Your task to perform on an android device: open app "Google Find My Device" (install if not already installed) Image 0: 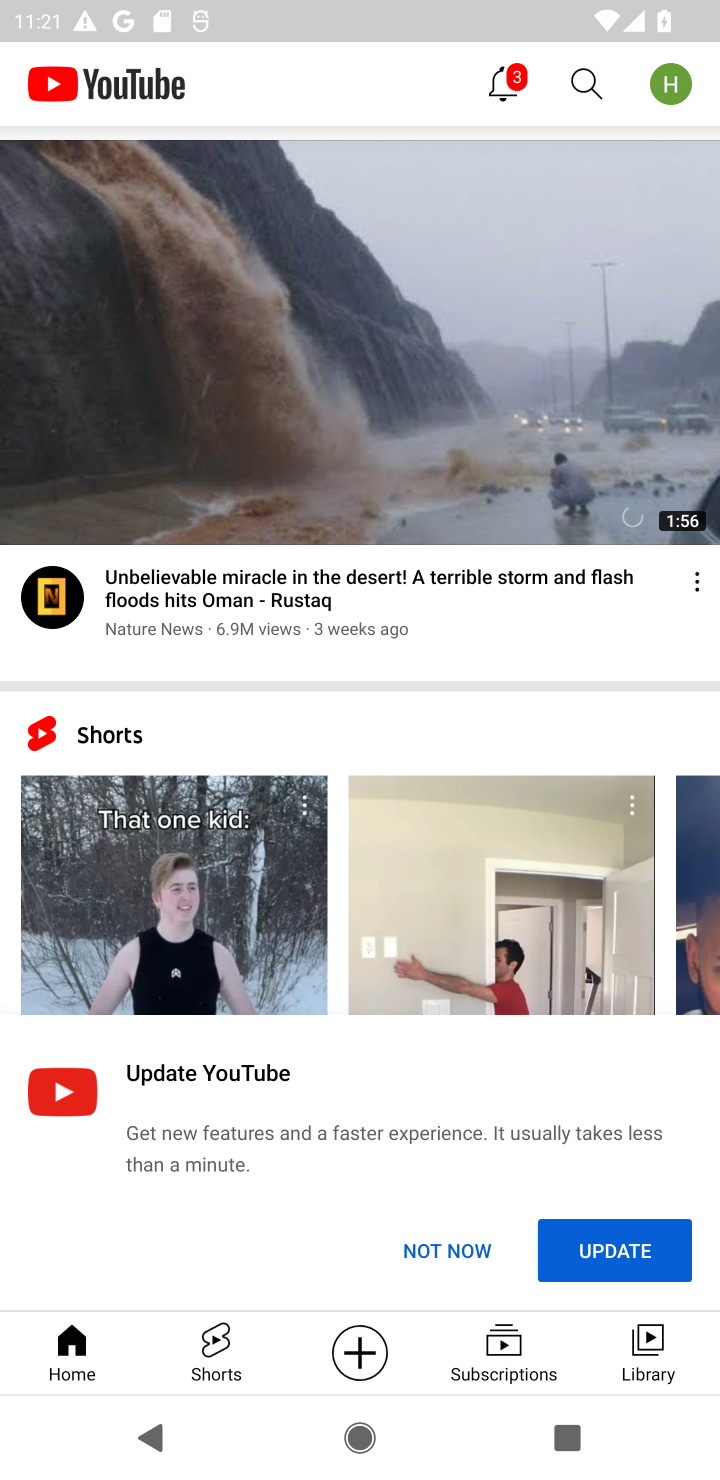
Step 0: press back button
Your task to perform on an android device: open app "Google Find My Device" (install if not already installed) Image 1: 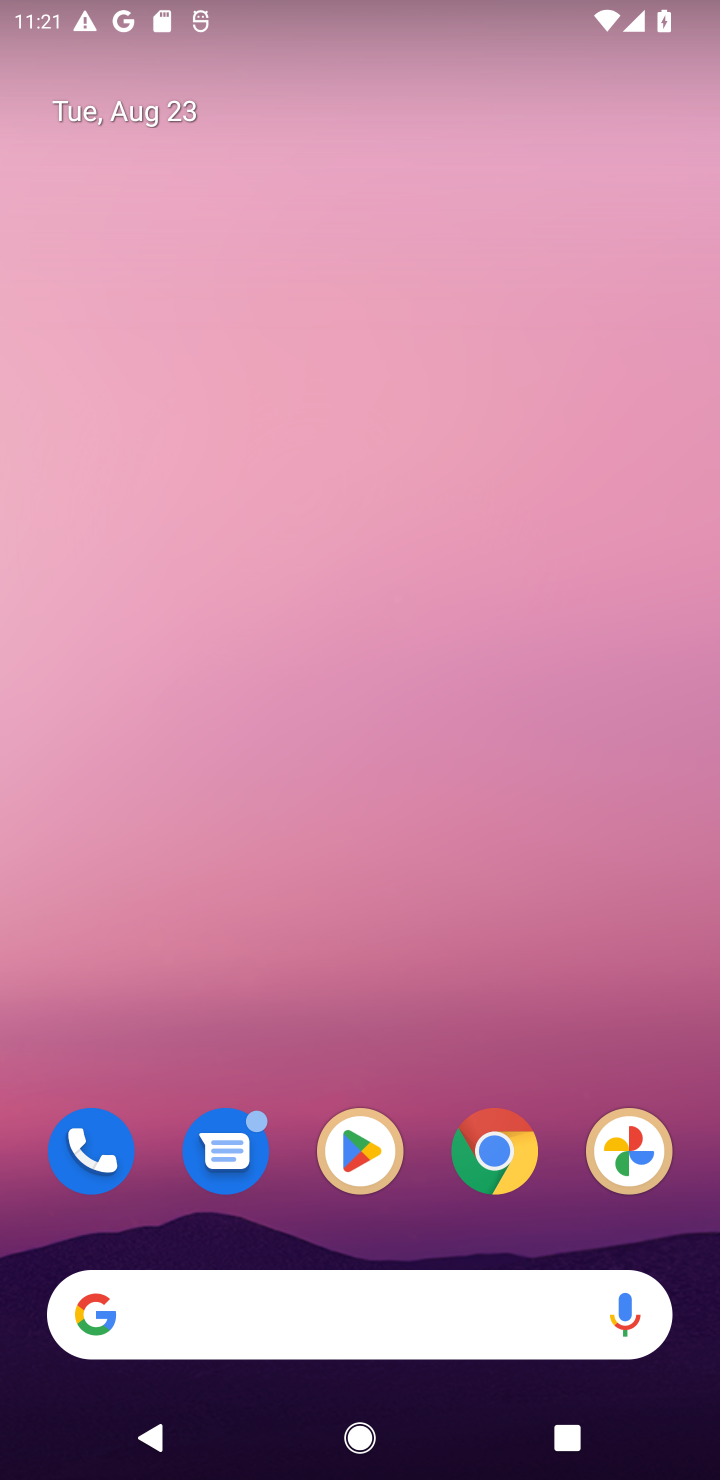
Step 1: click (347, 1153)
Your task to perform on an android device: open app "Google Find My Device" (install if not already installed) Image 2: 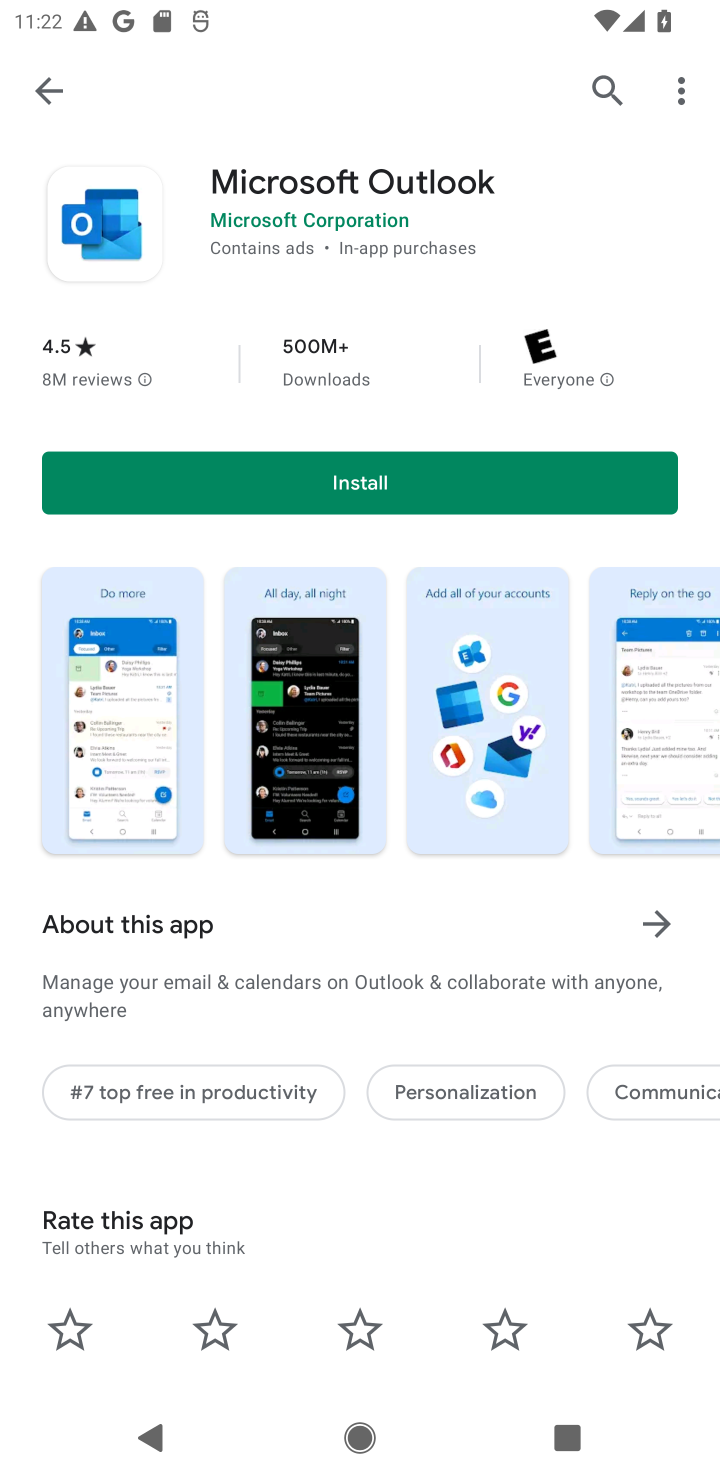
Step 2: click (594, 93)
Your task to perform on an android device: open app "Google Find My Device" (install if not already installed) Image 3: 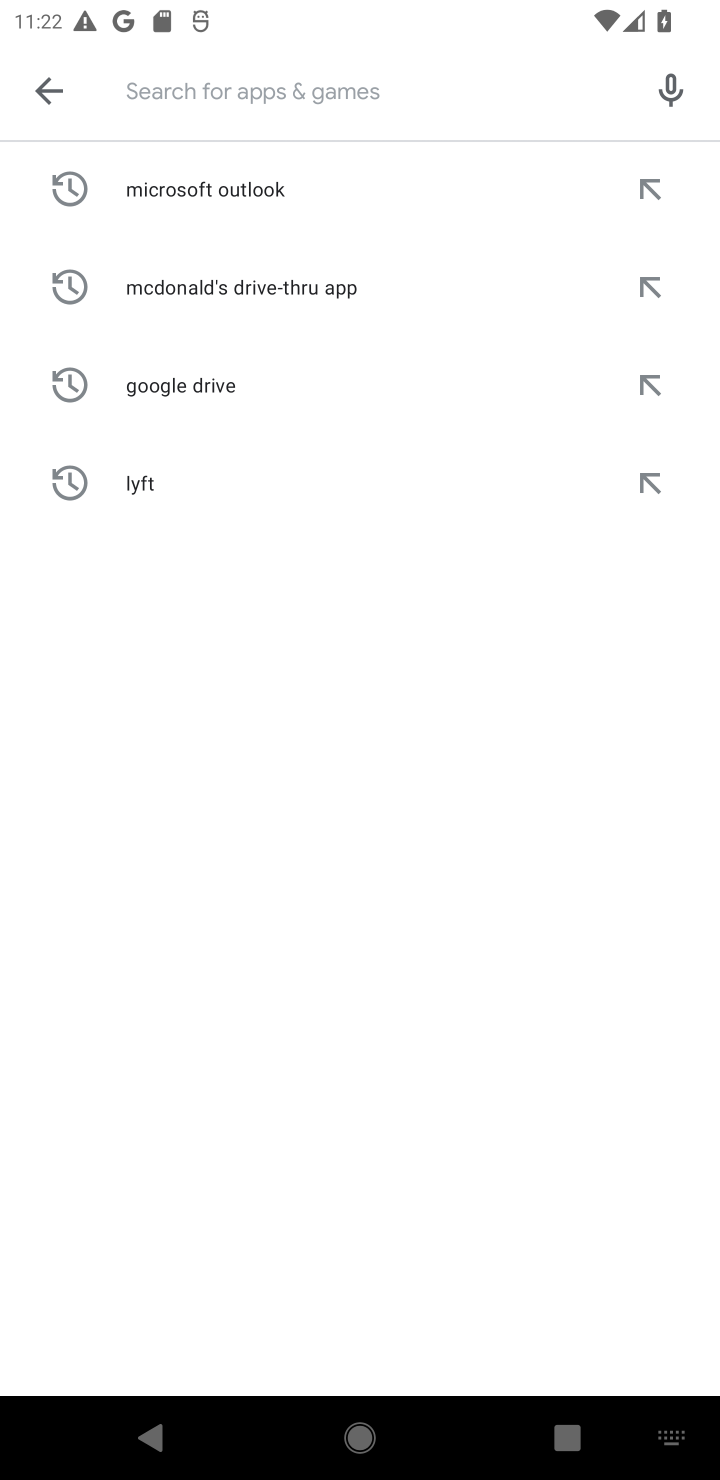
Step 3: type "Google Find My Device"
Your task to perform on an android device: open app "Google Find My Device" (install if not already installed) Image 4: 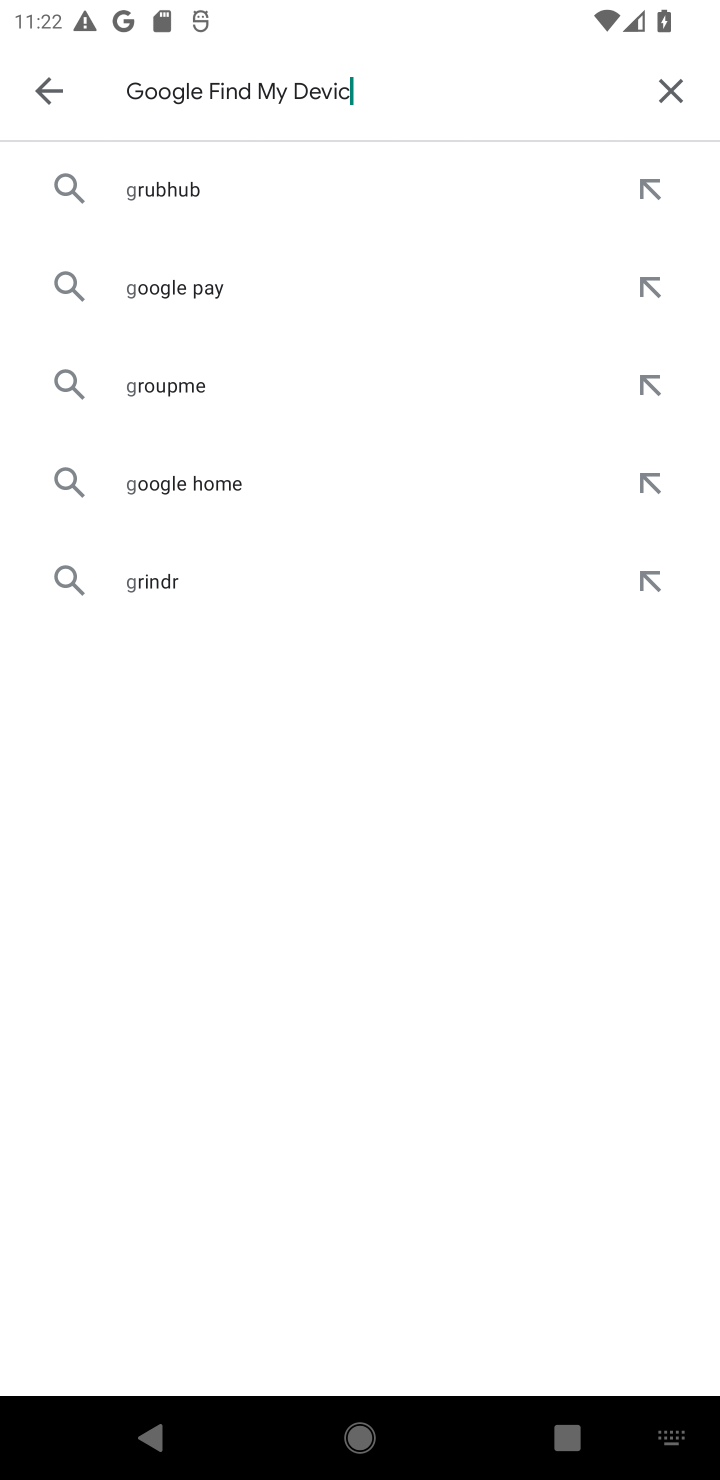
Step 4: type ""
Your task to perform on an android device: open app "Google Find My Device" (install if not already installed) Image 5: 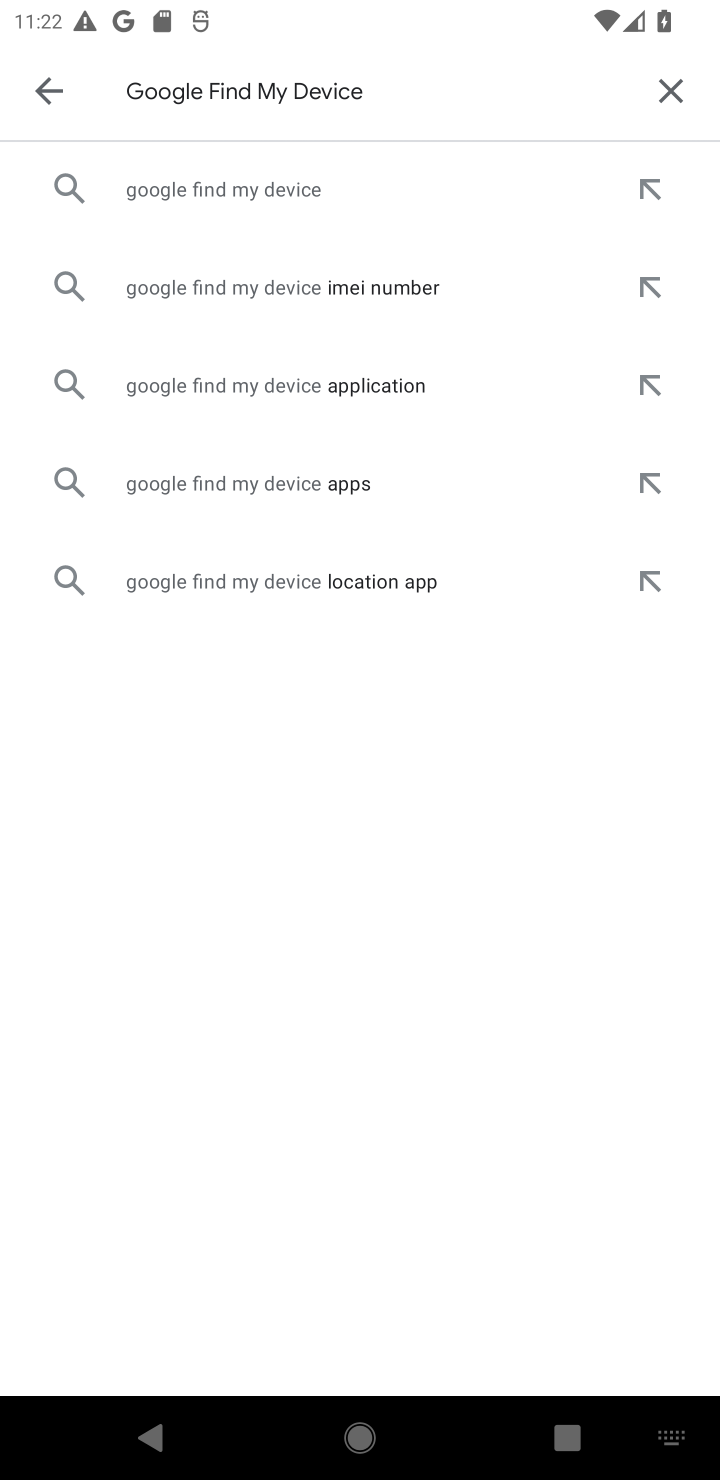
Step 5: click (319, 203)
Your task to perform on an android device: open app "Google Find My Device" (install if not already installed) Image 6: 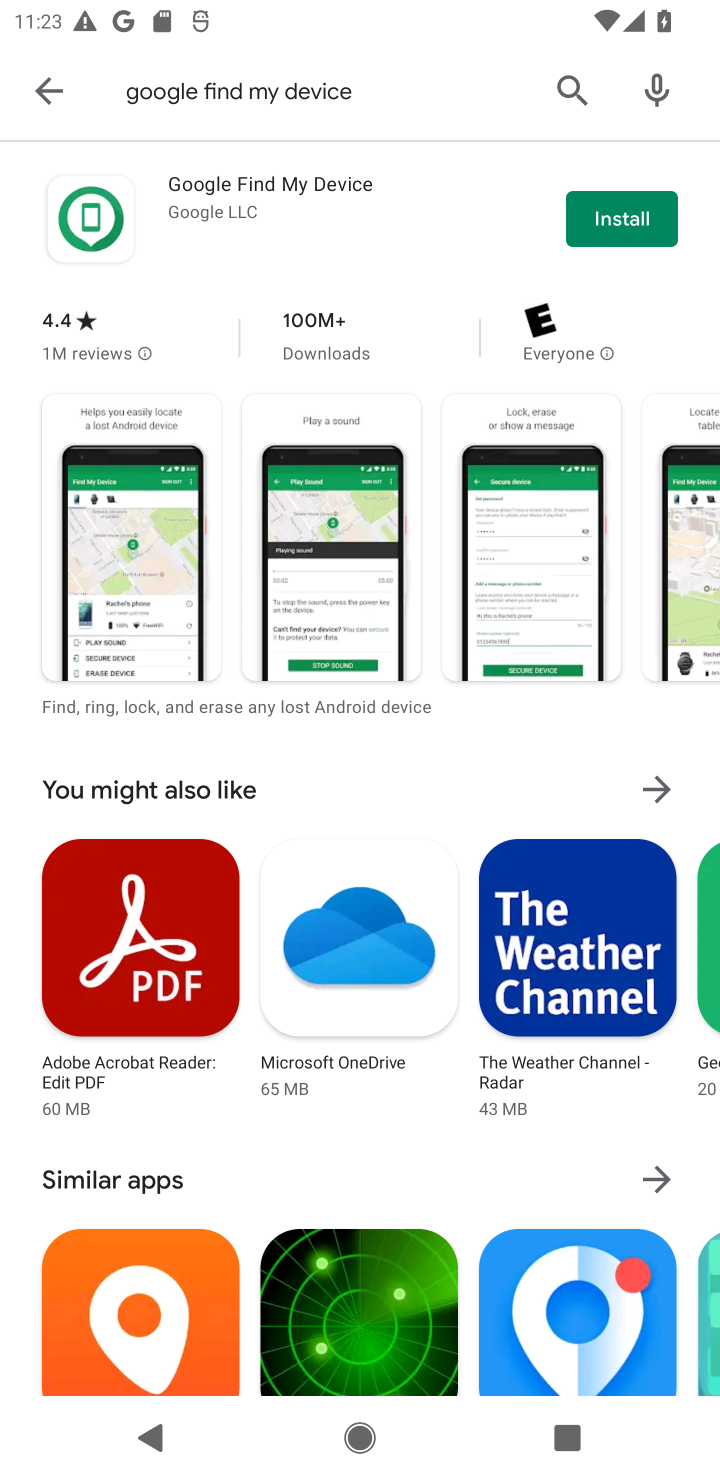
Step 6: click (613, 230)
Your task to perform on an android device: open app "Google Find My Device" (install if not already installed) Image 7: 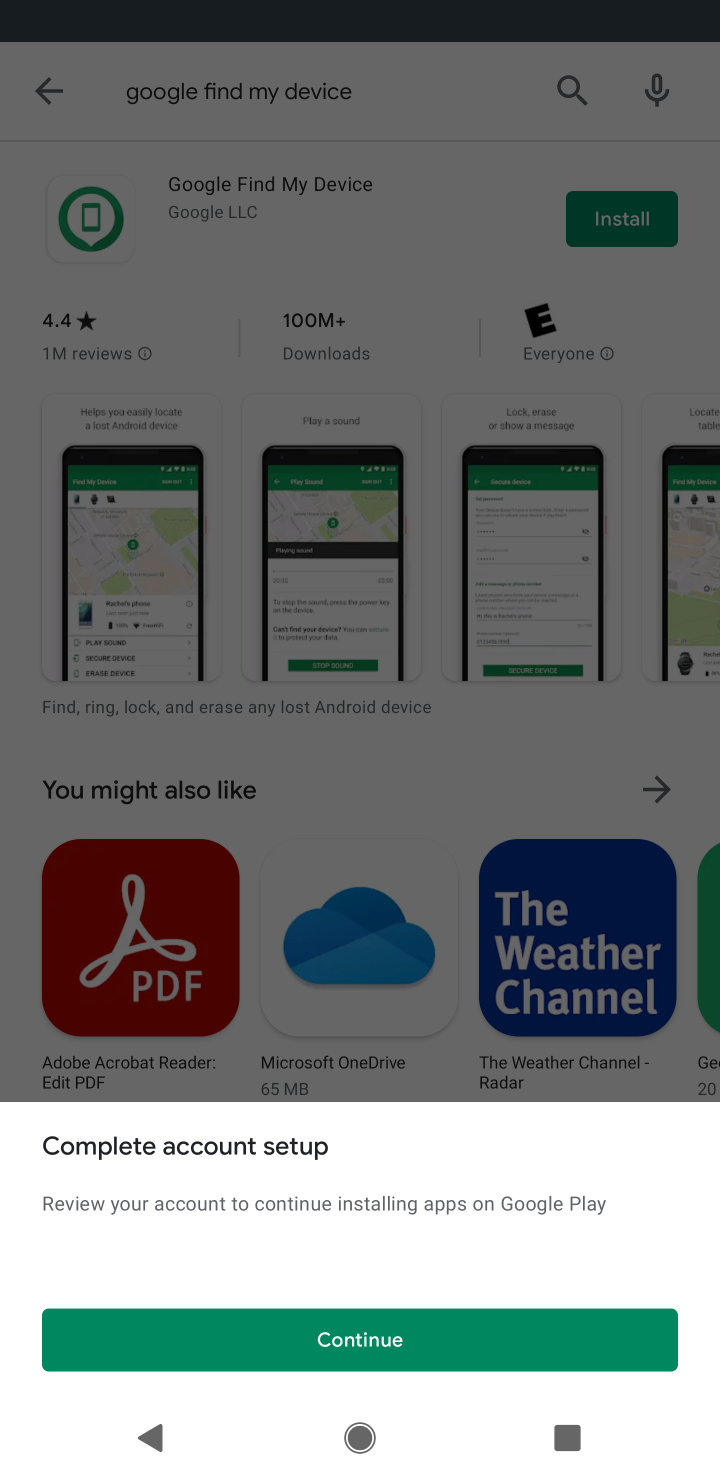
Step 7: click (318, 1321)
Your task to perform on an android device: open app "Google Find My Device" (install if not already installed) Image 8: 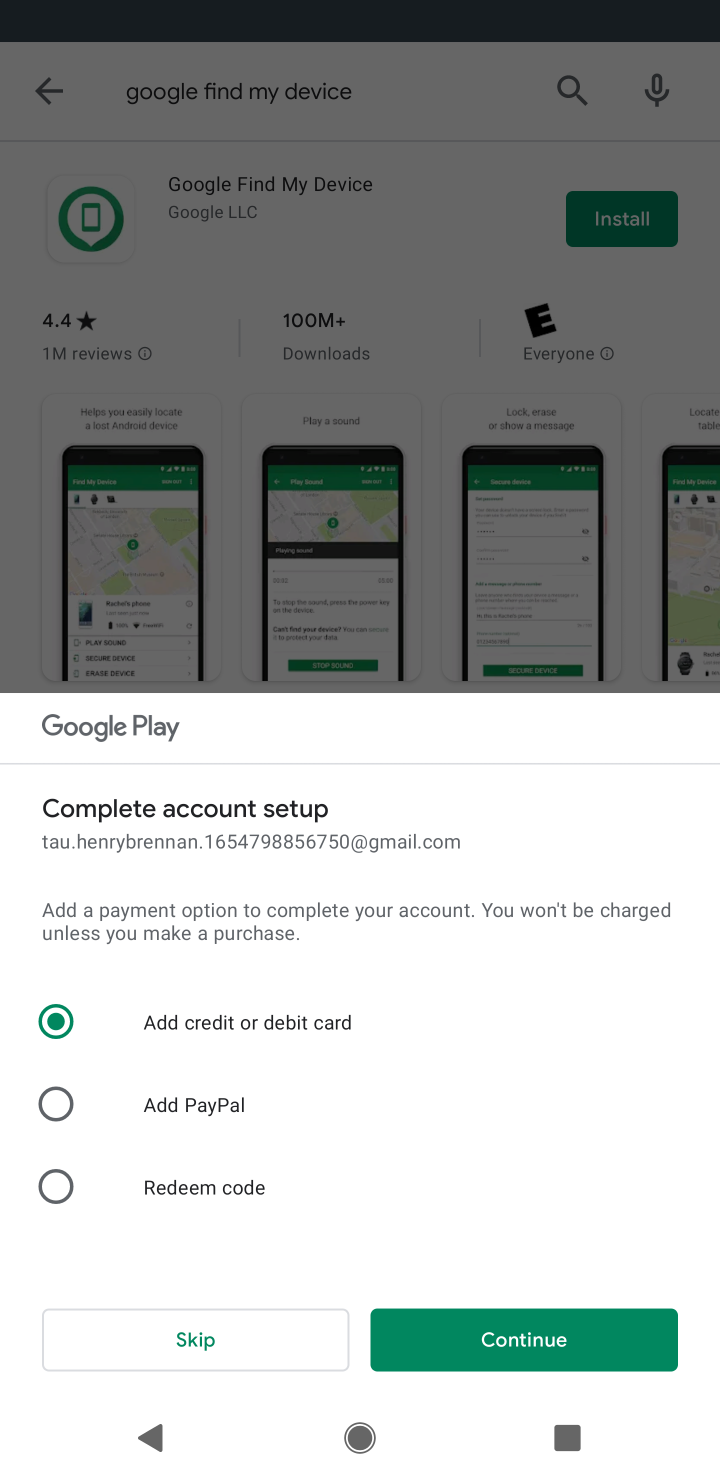
Step 8: click (166, 1356)
Your task to perform on an android device: open app "Google Find My Device" (install if not already installed) Image 9: 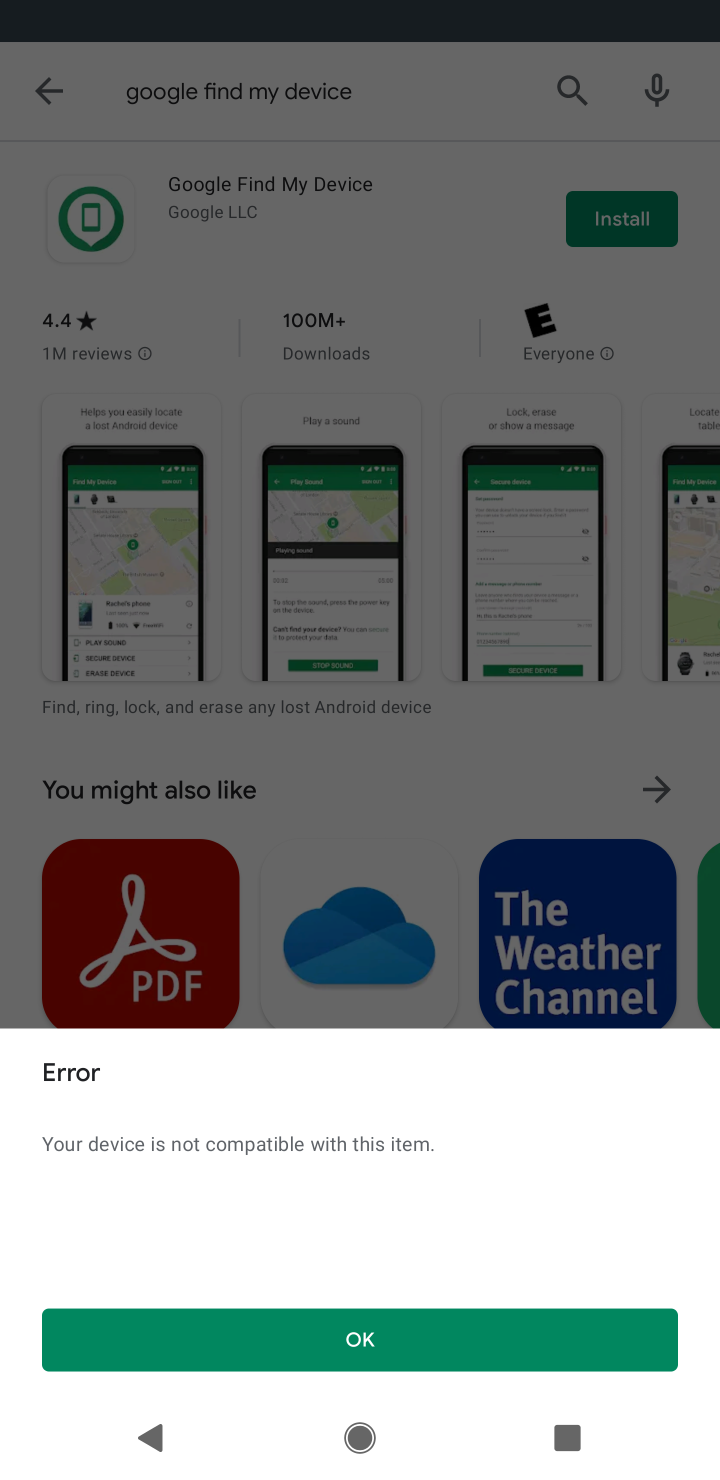
Step 9: click (315, 1324)
Your task to perform on an android device: open app "Google Find My Device" (install if not already installed) Image 10: 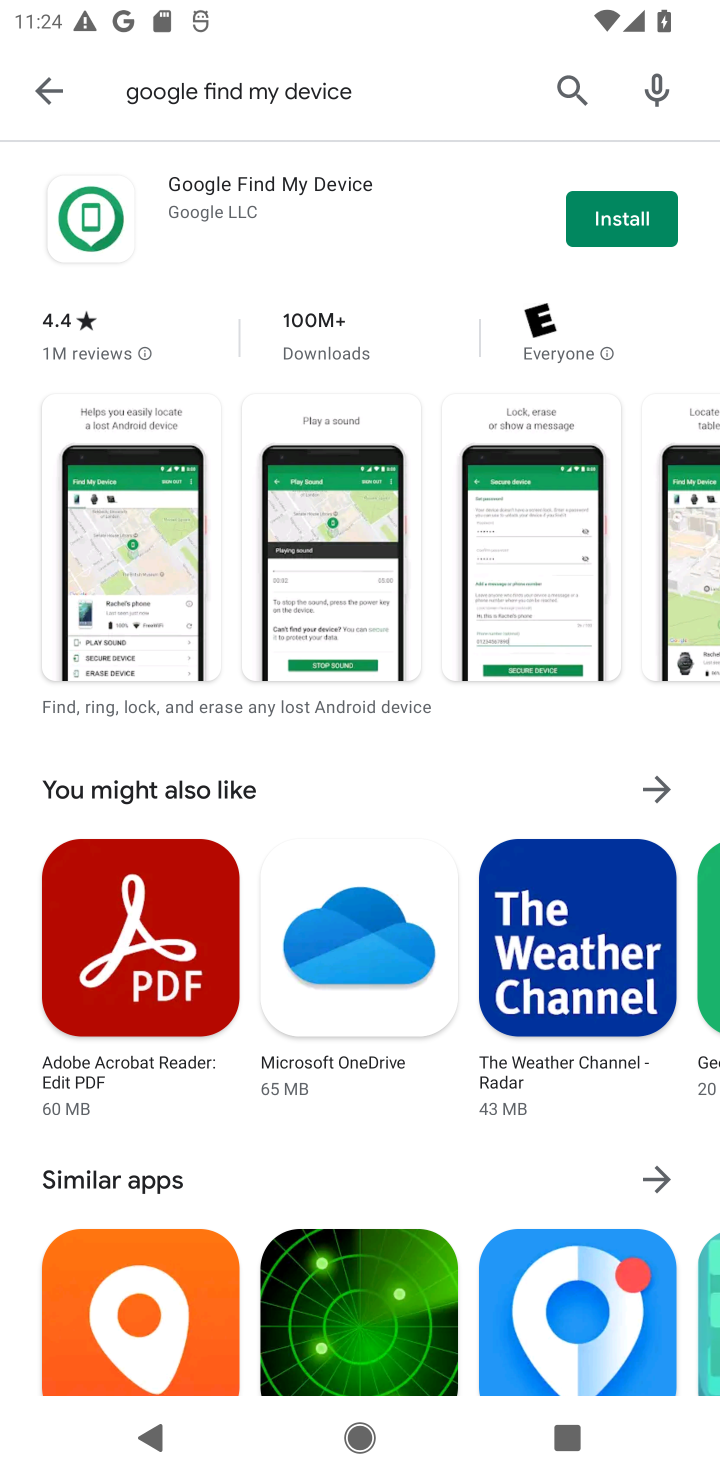
Step 10: click (615, 234)
Your task to perform on an android device: open app "Google Find My Device" (install if not already installed) Image 11: 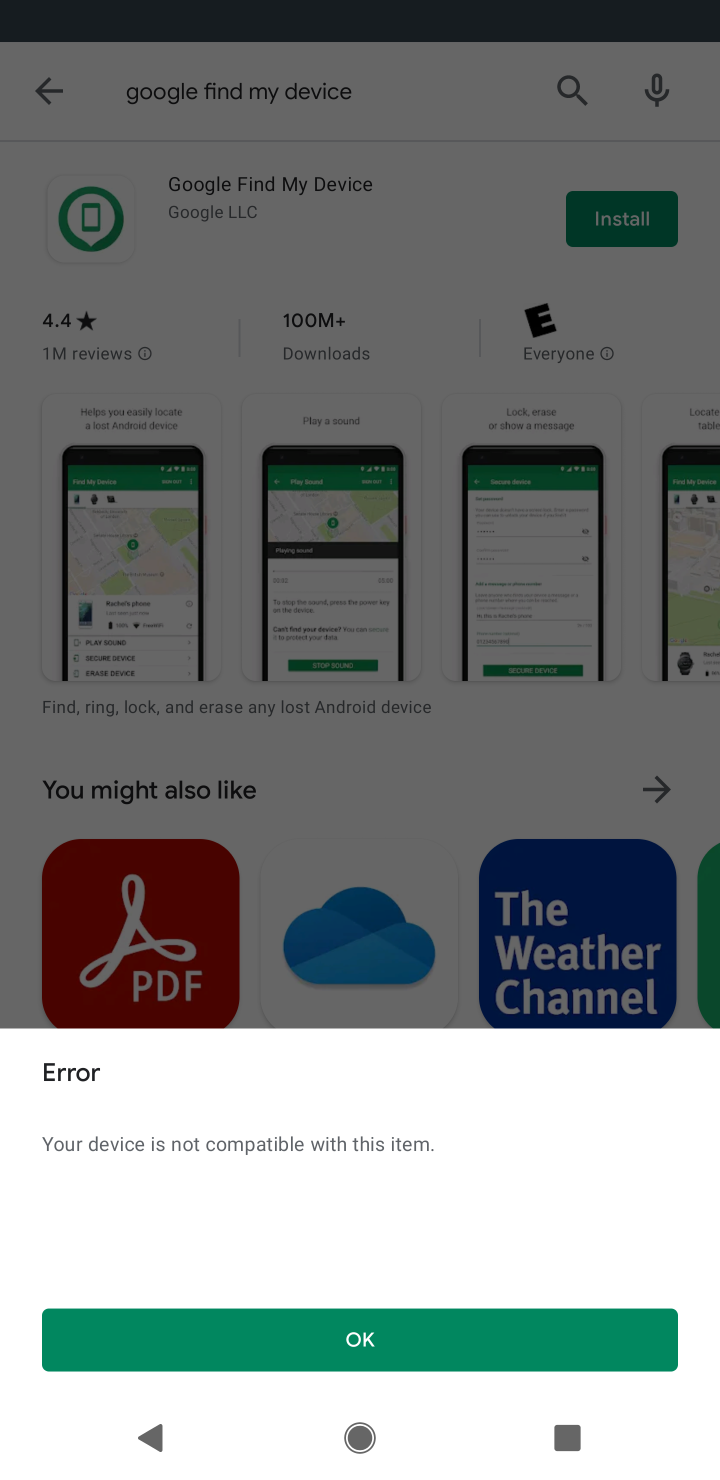
Step 11: task complete